Your task to perform on an android device: visit the assistant section in the google photos Image 0: 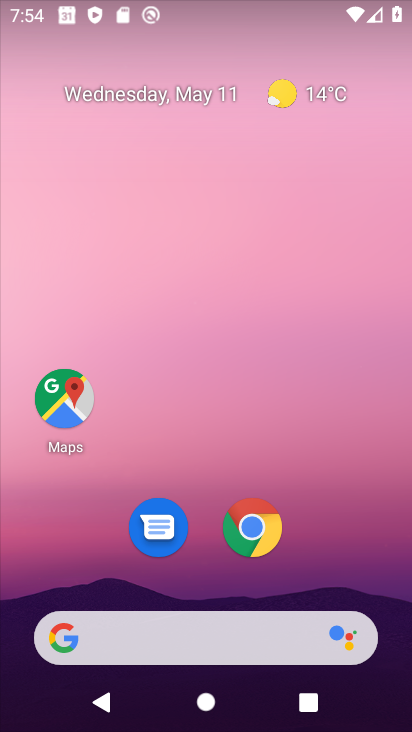
Step 0: drag from (206, 597) to (263, 5)
Your task to perform on an android device: visit the assistant section in the google photos Image 1: 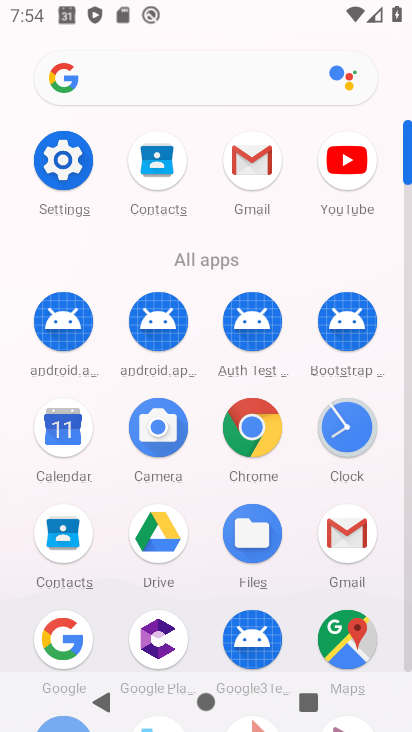
Step 1: drag from (210, 588) to (232, 202)
Your task to perform on an android device: visit the assistant section in the google photos Image 2: 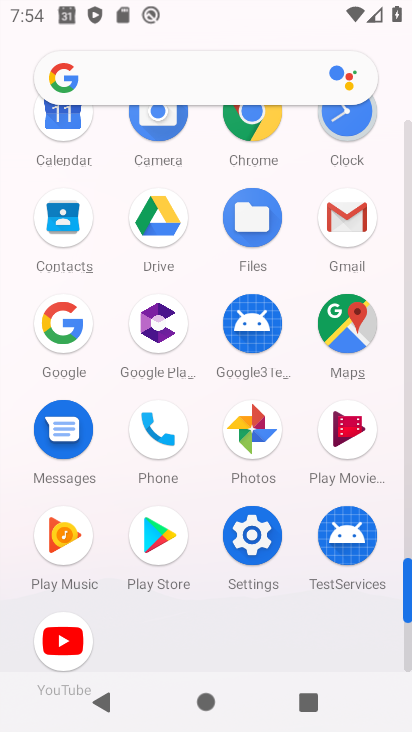
Step 2: click (251, 437)
Your task to perform on an android device: visit the assistant section in the google photos Image 3: 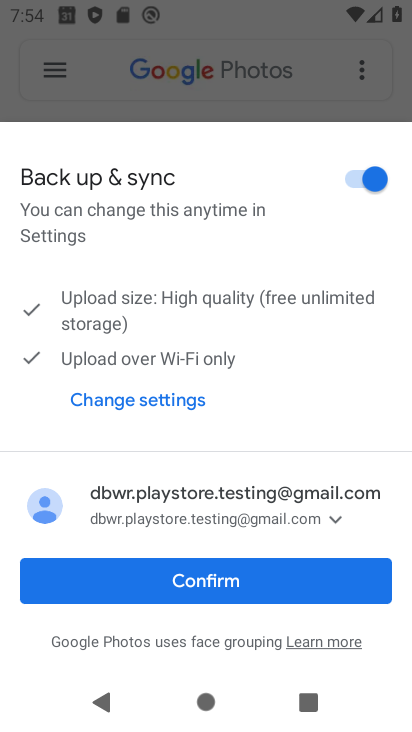
Step 3: click (230, 574)
Your task to perform on an android device: visit the assistant section in the google photos Image 4: 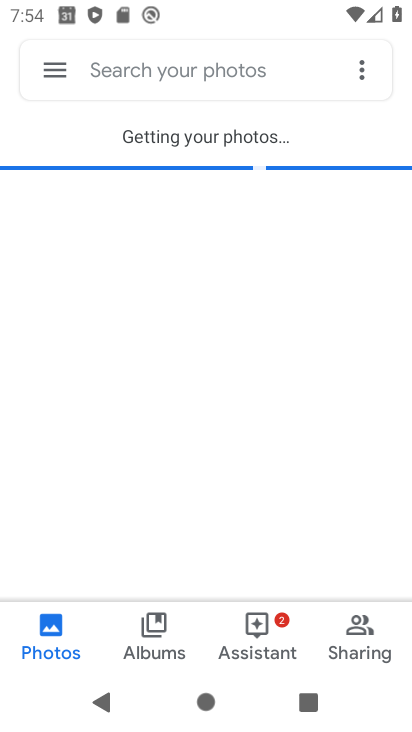
Step 4: click (265, 647)
Your task to perform on an android device: visit the assistant section in the google photos Image 5: 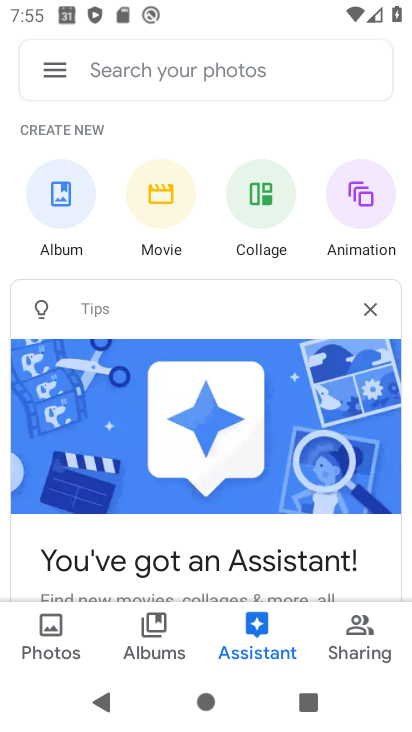
Step 5: task complete